Your task to perform on an android device: check out phone information Image 0: 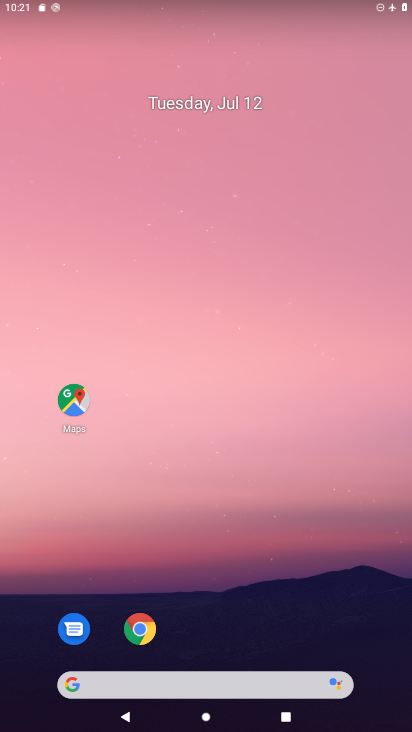
Step 0: drag from (299, 675) to (246, 184)
Your task to perform on an android device: check out phone information Image 1: 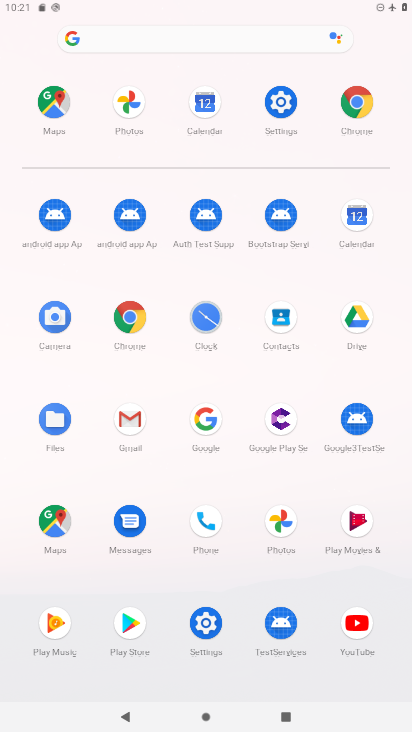
Step 1: click (280, 96)
Your task to perform on an android device: check out phone information Image 2: 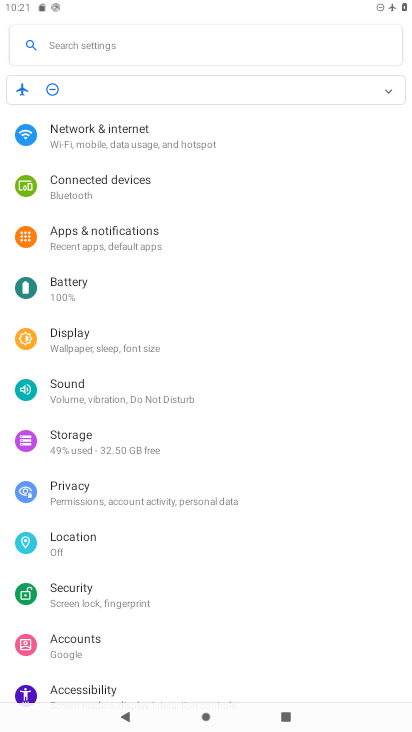
Step 2: drag from (242, 626) to (371, 10)
Your task to perform on an android device: check out phone information Image 3: 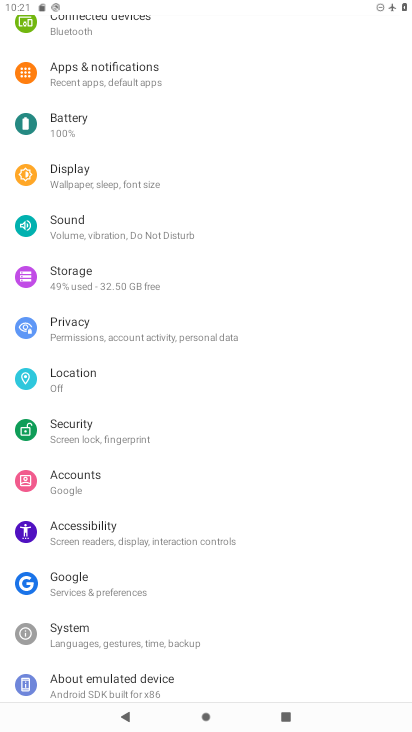
Step 3: click (122, 682)
Your task to perform on an android device: check out phone information Image 4: 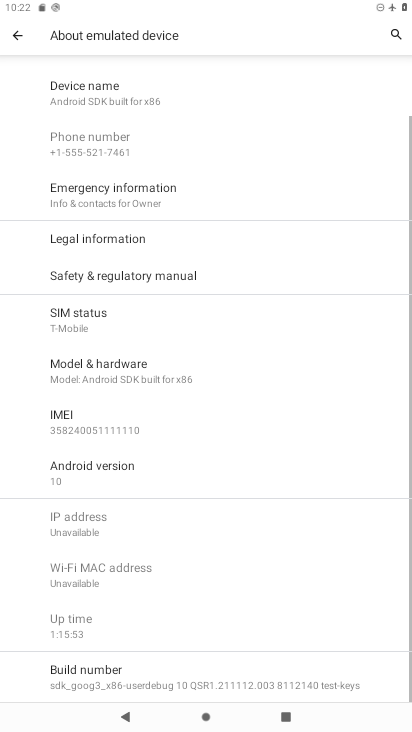
Step 4: task complete